Your task to perform on an android device: Do I have any events this weekend? Image 0: 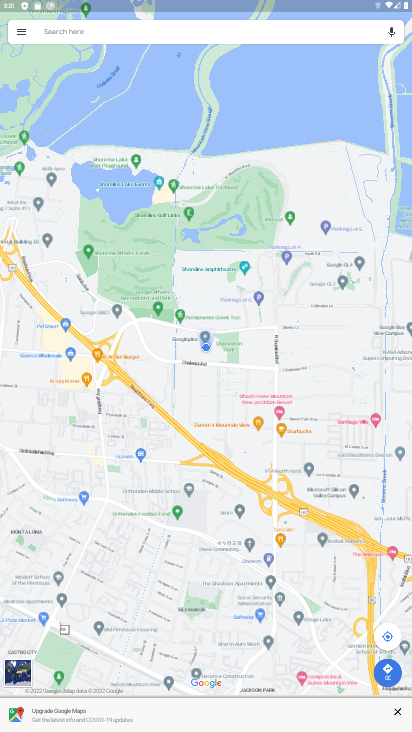
Step 0: press home button
Your task to perform on an android device: Do I have any events this weekend? Image 1: 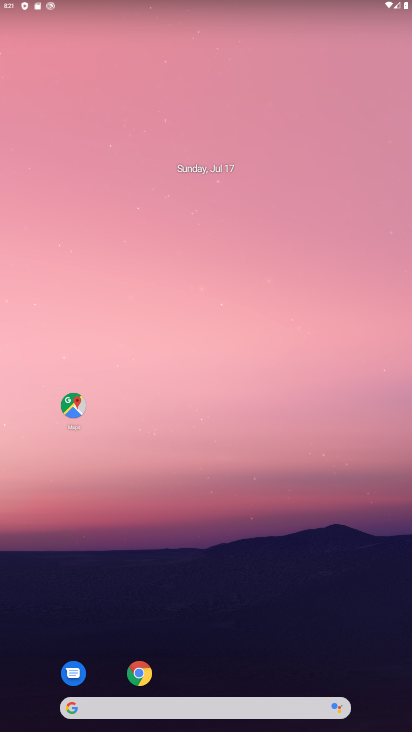
Step 1: drag from (268, 663) to (213, 2)
Your task to perform on an android device: Do I have any events this weekend? Image 2: 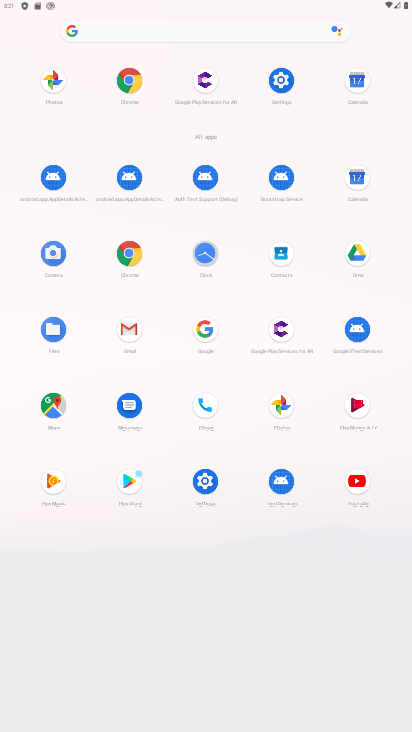
Step 2: click (361, 84)
Your task to perform on an android device: Do I have any events this weekend? Image 3: 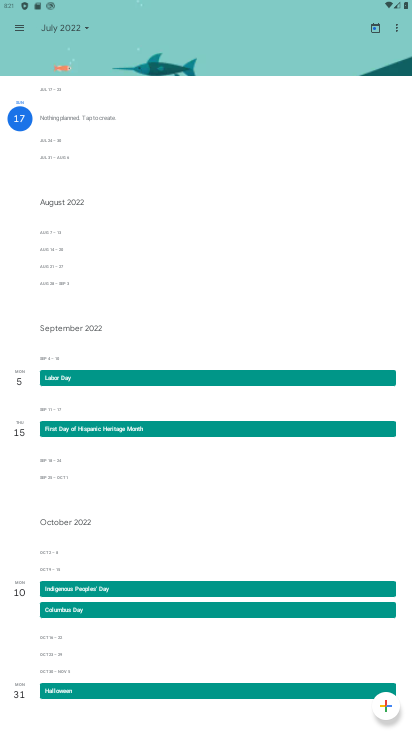
Step 3: click (15, 17)
Your task to perform on an android device: Do I have any events this weekend? Image 4: 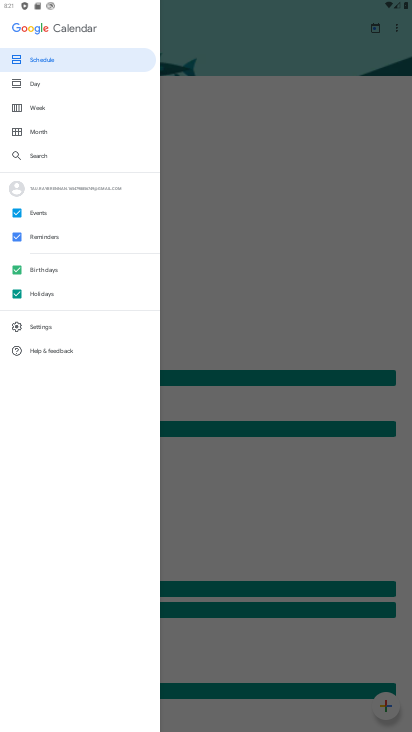
Step 4: click (239, 160)
Your task to perform on an android device: Do I have any events this weekend? Image 5: 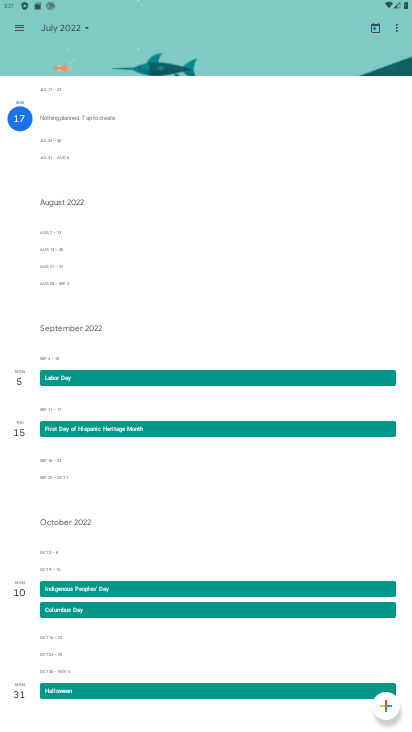
Step 5: click (19, 28)
Your task to perform on an android device: Do I have any events this weekend? Image 6: 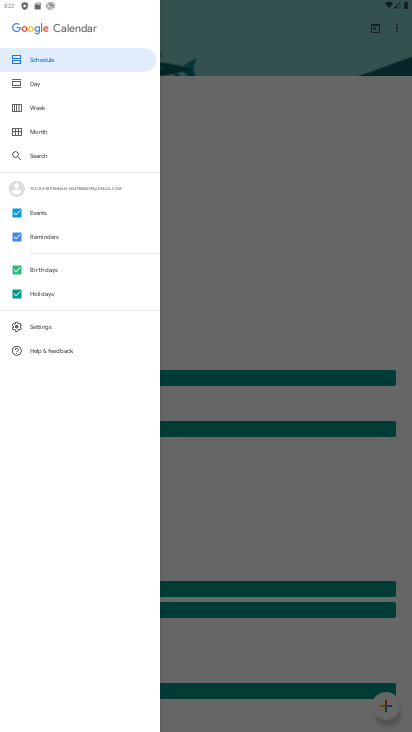
Step 6: click (33, 109)
Your task to perform on an android device: Do I have any events this weekend? Image 7: 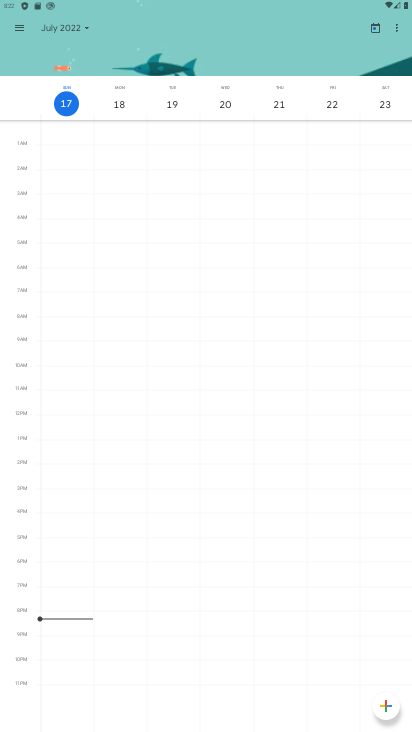
Step 7: click (328, 101)
Your task to perform on an android device: Do I have any events this weekend? Image 8: 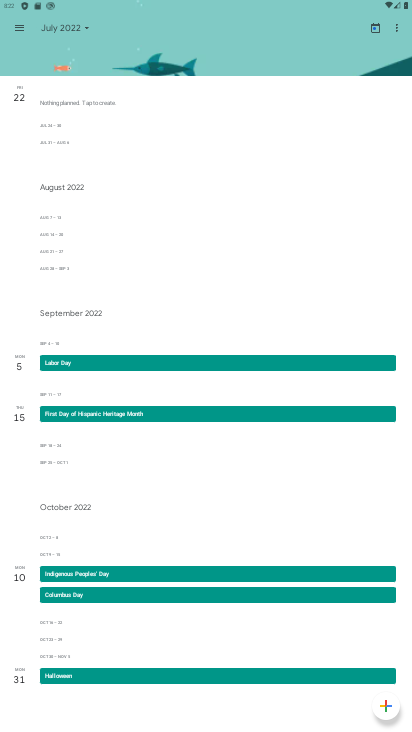
Step 8: task complete